Your task to perform on an android device: Go to eBay Image 0: 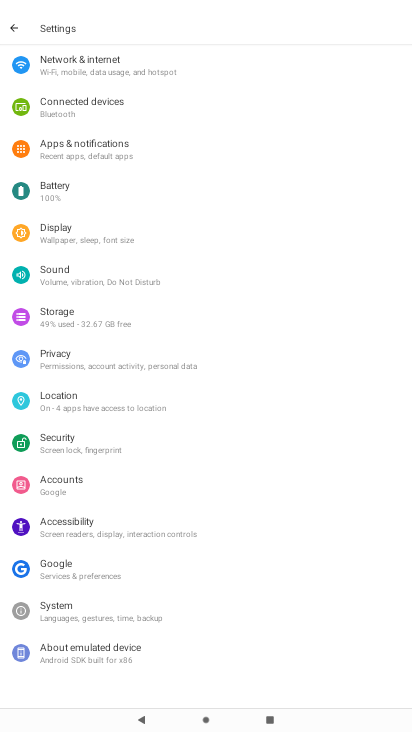
Step 0: press home button
Your task to perform on an android device: Go to eBay Image 1: 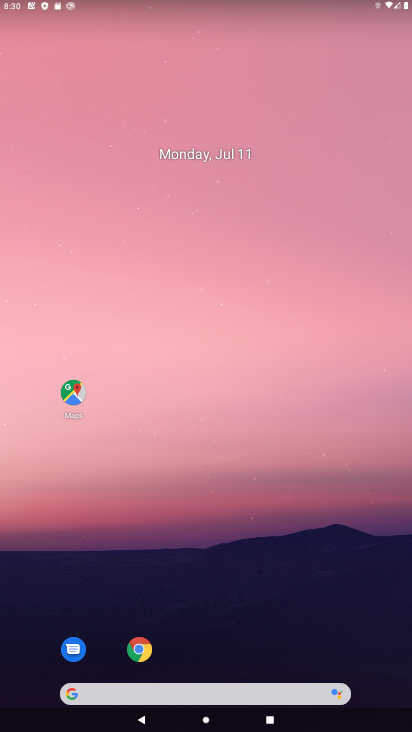
Step 1: click (142, 643)
Your task to perform on an android device: Go to eBay Image 2: 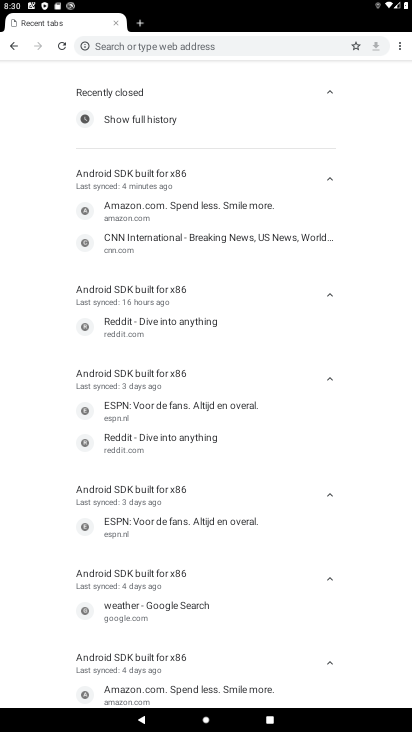
Step 2: press back button
Your task to perform on an android device: Go to eBay Image 3: 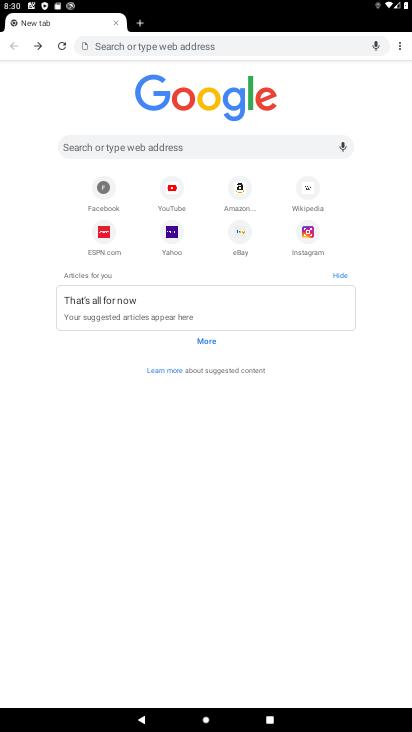
Step 3: click (237, 225)
Your task to perform on an android device: Go to eBay Image 4: 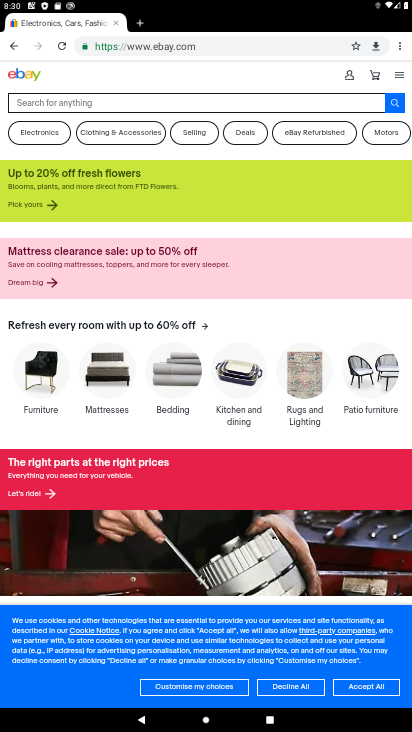
Step 4: click (355, 688)
Your task to perform on an android device: Go to eBay Image 5: 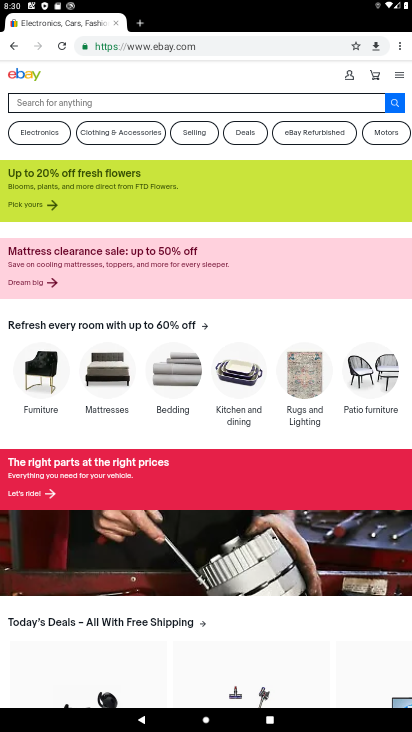
Step 5: task complete